Your task to perform on an android device: turn off improve location accuracy Image 0: 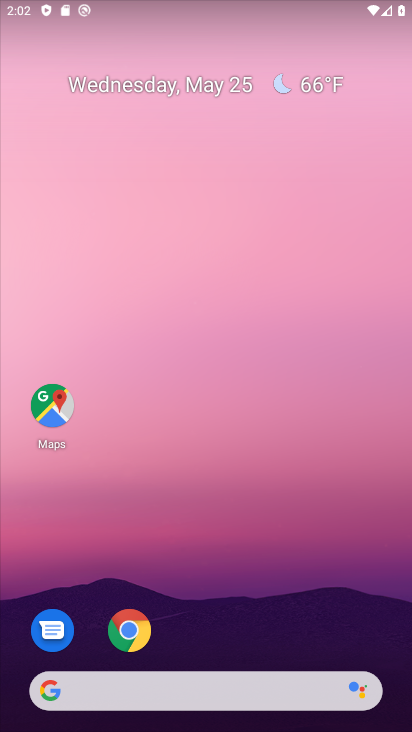
Step 0: press home button
Your task to perform on an android device: turn off improve location accuracy Image 1: 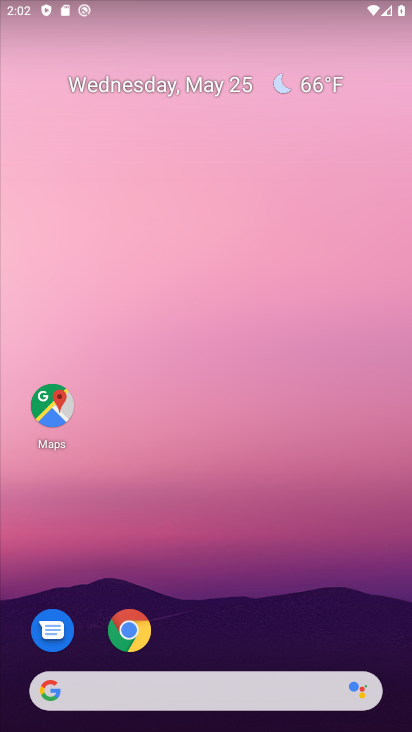
Step 1: drag from (221, 645) to (235, 176)
Your task to perform on an android device: turn off improve location accuracy Image 2: 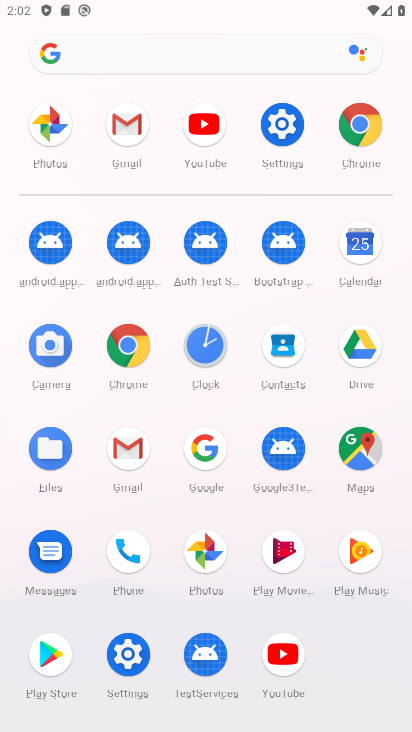
Step 2: click (125, 647)
Your task to perform on an android device: turn off improve location accuracy Image 3: 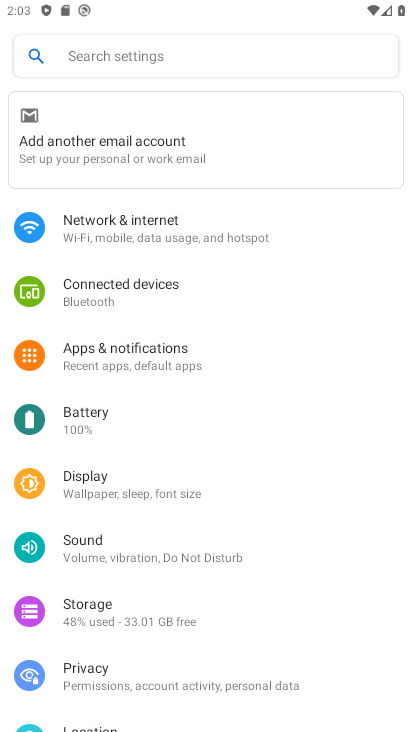
Step 3: drag from (129, 659) to (163, 213)
Your task to perform on an android device: turn off improve location accuracy Image 4: 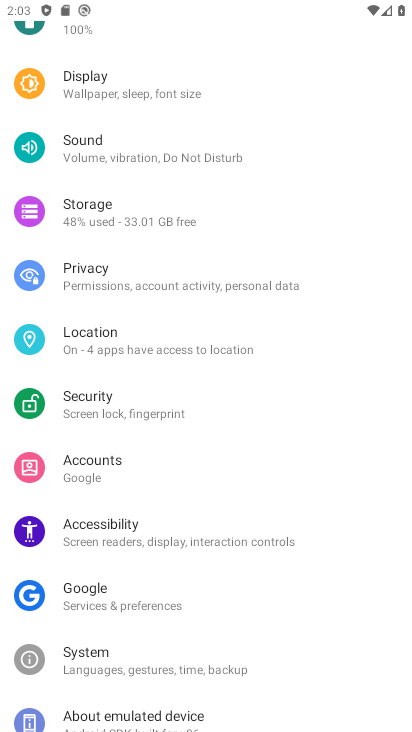
Step 4: click (126, 333)
Your task to perform on an android device: turn off improve location accuracy Image 5: 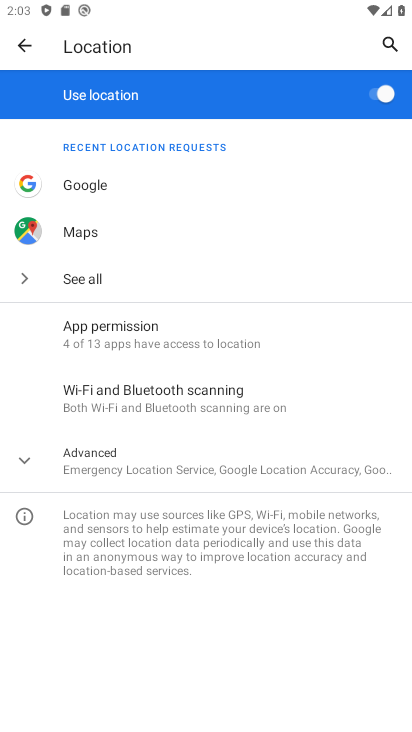
Step 5: click (71, 453)
Your task to perform on an android device: turn off improve location accuracy Image 6: 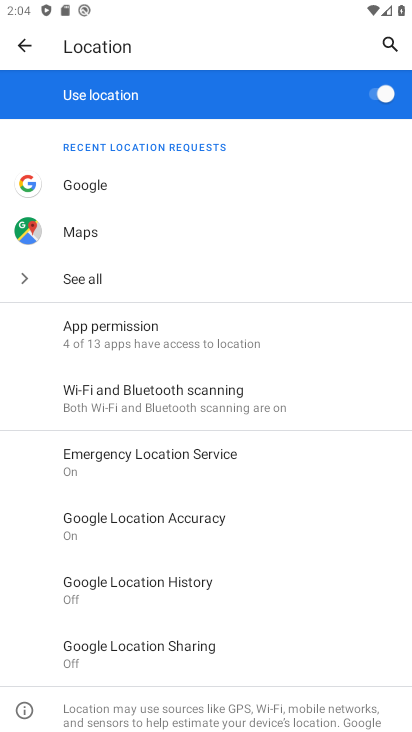
Step 6: click (175, 521)
Your task to perform on an android device: turn off improve location accuracy Image 7: 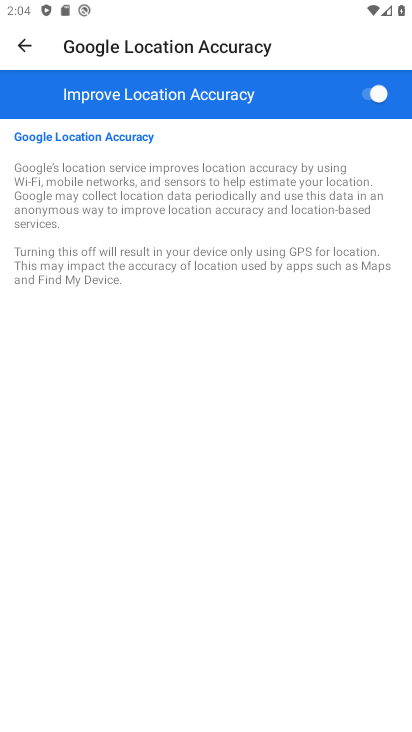
Step 7: click (366, 90)
Your task to perform on an android device: turn off improve location accuracy Image 8: 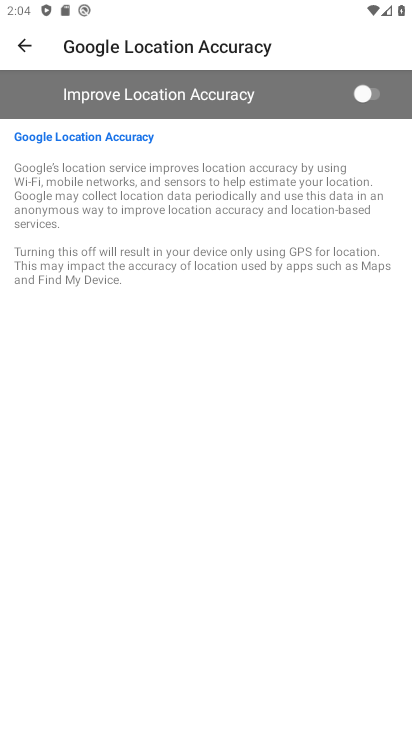
Step 8: task complete